Your task to perform on an android device: find photos in the google photos app Image 0: 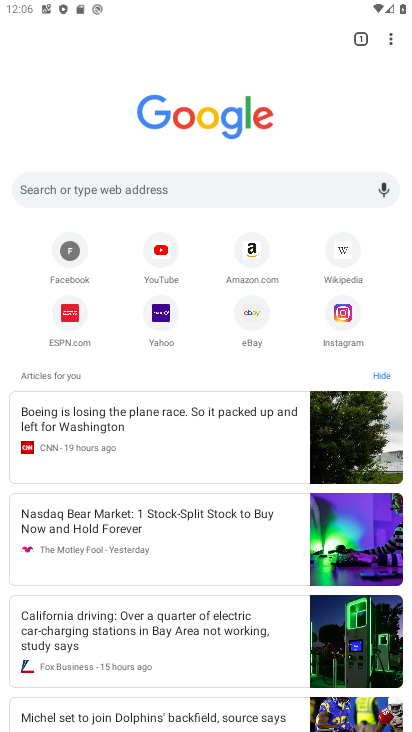
Step 0: press back button
Your task to perform on an android device: find photos in the google photos app Image 1: 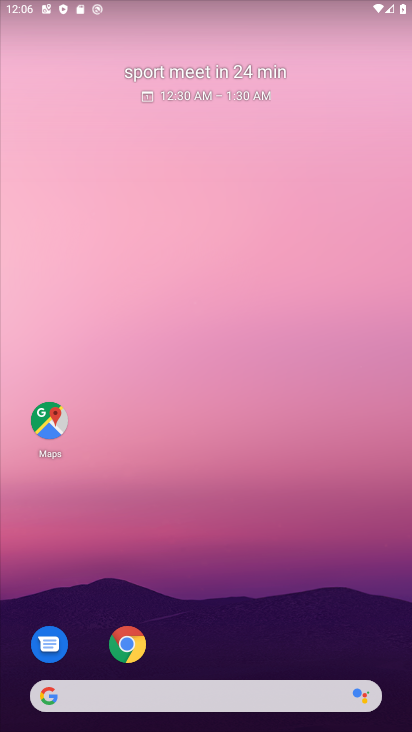
Step 1: drag from (195, 543) to (264, 37)
Your task to perform on an android device: find photos in the google photos app Image 2: 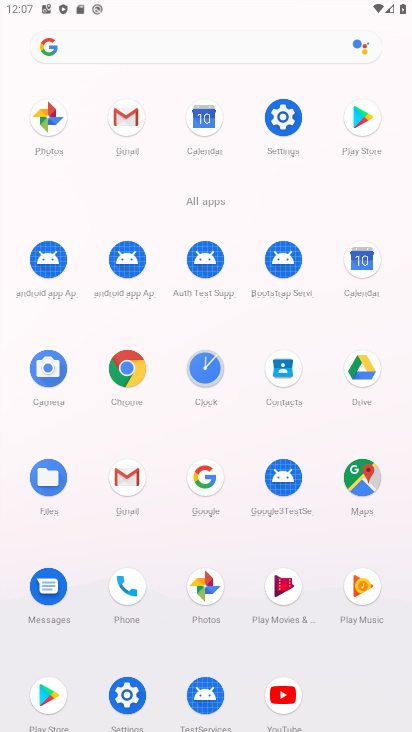
Step 2: click (207, 589)
Your task to perform on an android device: find photos in the google photos app Image 3: 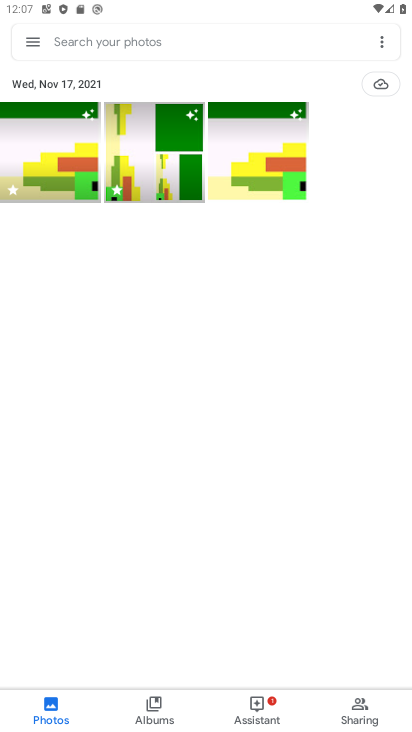
Step 3: click (54, 710)
Your task to perform on an android device: find photos in the google photos app Image 4: 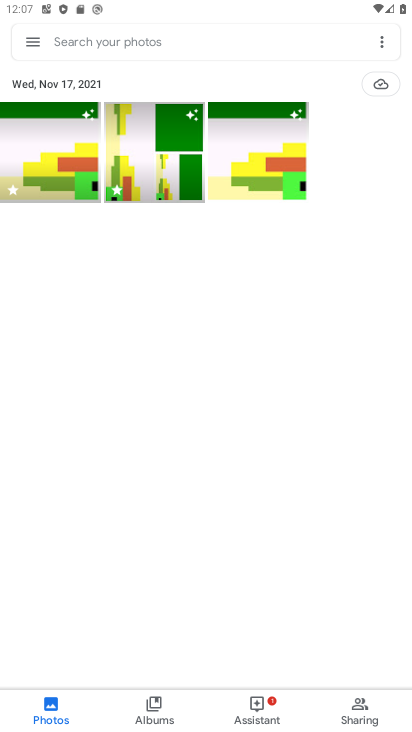
Step 4: task complete